Your task to perform on an android device: Set the phone to "Do not disturb". Image 0: 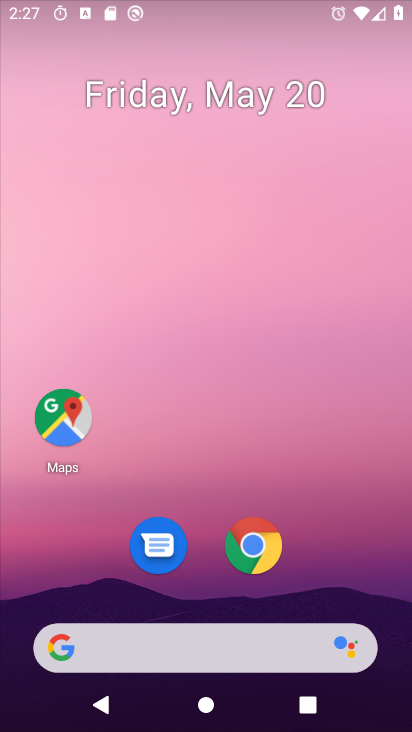
Step 0: drag from (290, 608) to (274, 6)
Your task to perform on an android device: Set the phone to "Do not disturb". Image 1: 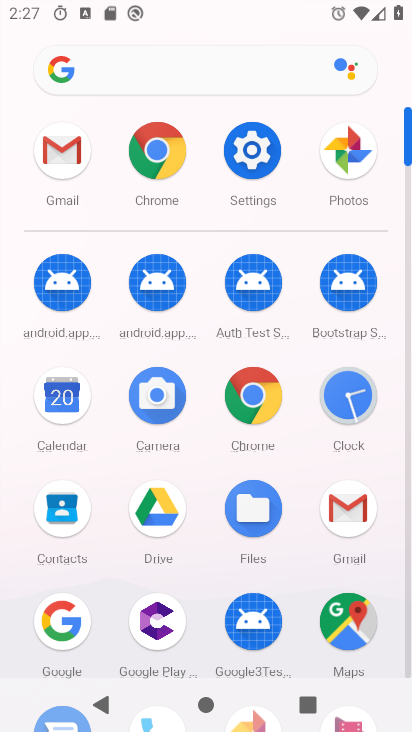
Step 1: click (262, 157)
Your task to perform on an android device: Set the phone to "Do not disturb". Image 2: 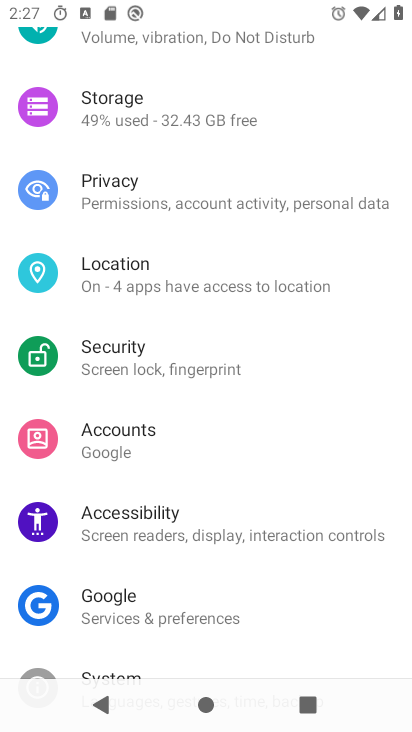
Step 2: drag from (163, 135) to (204, 577)
Your task to perform on an android device: Set the phone to "Do not disturb". Image 3: 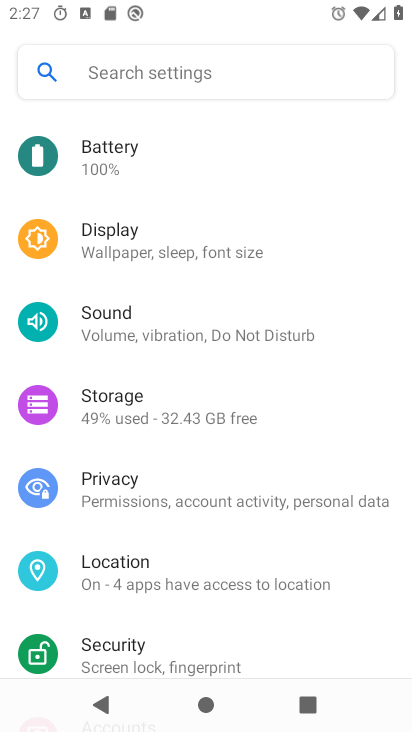
Step 3: click (151, 341)
Your task to perform on an android device: Set the phone to "Do not disturb". Image 4: 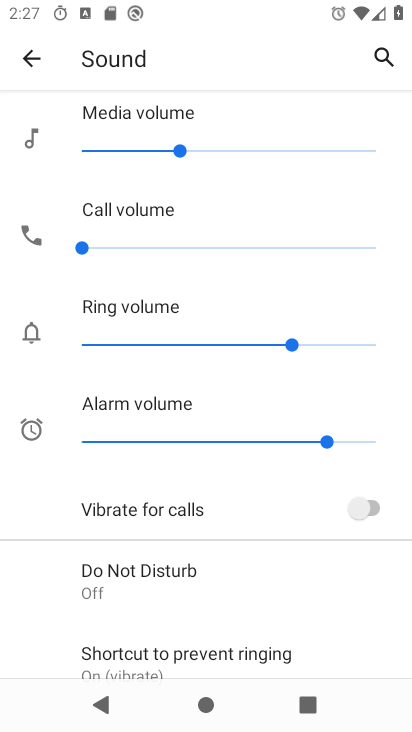
Step 4: click (189, 579)
Your task to perform on an android device: Set the phone to "Do not disturb". Image 5: 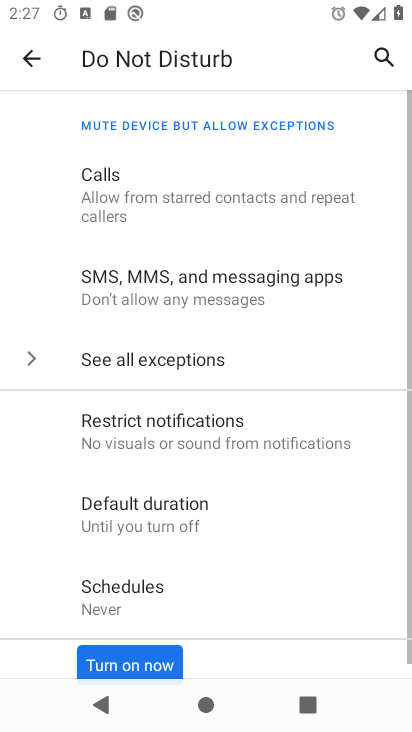
Step 5: drag from (212, 635) to (277, 337)
Your task to perform on an android device: Set the phone to "Do not disturb". Image 6: 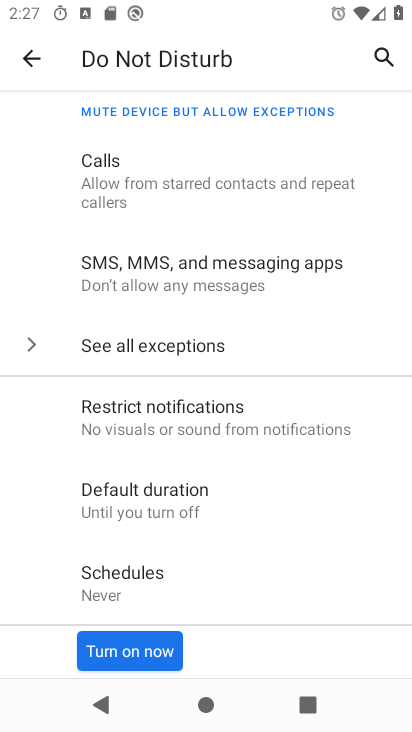
Step 6: click (143, 654)
Your task to perform on an android device: Set the phone to "Do not disturb". Image 7: 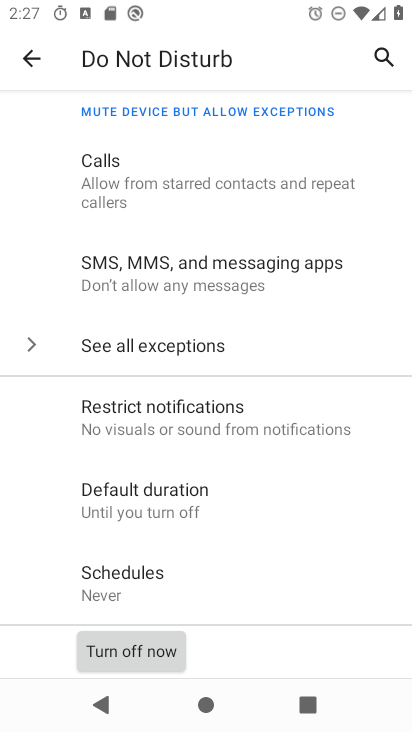
Step 7: task complete